Your task to perform on an android device: turn on location history Image 0: 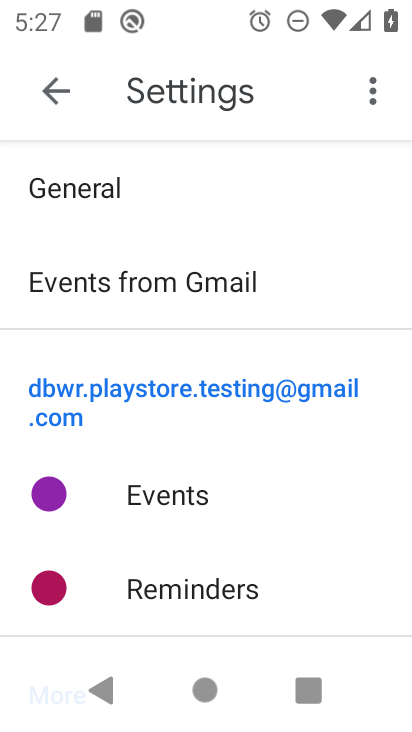
Step 0: press home button
Your task to perform on an android device: turn on location history Image 1: 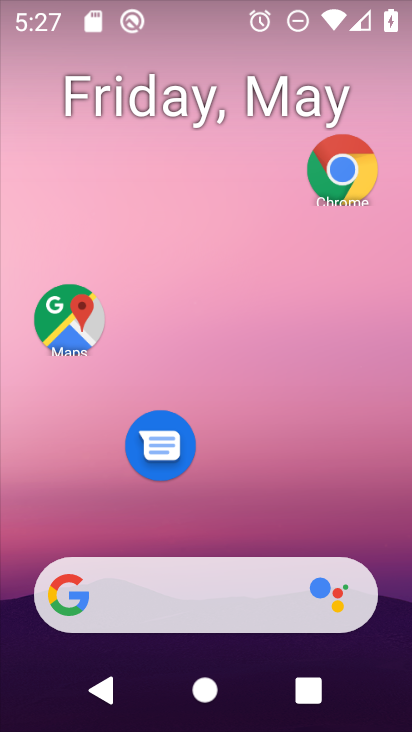
Step 1: drag from (235, 541) to (155, 146)
Your task to perform on an android device: turn on location history Image 2: 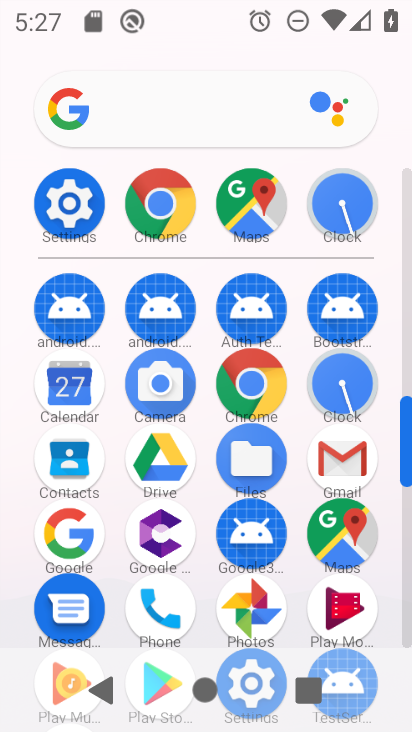
Step 2: click (72, 202)
Your task to perform on an android device: turn on location history Image 3: 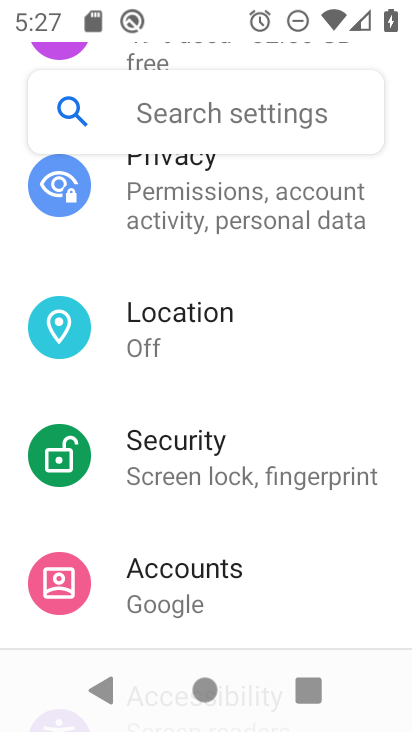
Step 3: click (235, 522)
Your task to perform on an android device: turn on location history Image 4: 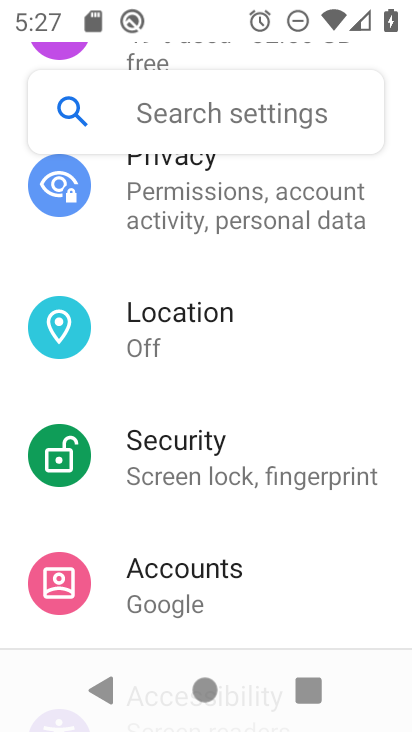
Step 4: click (124, 344)
Your task to perform on an android device: turn on location history Image 5: 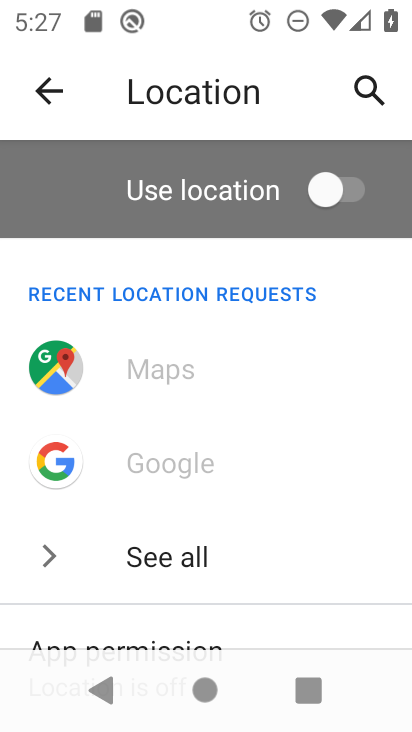
Step 5: drag from (255, 551) to (236, 238)
Your task to perform on an android device: turn on location history Image 6: 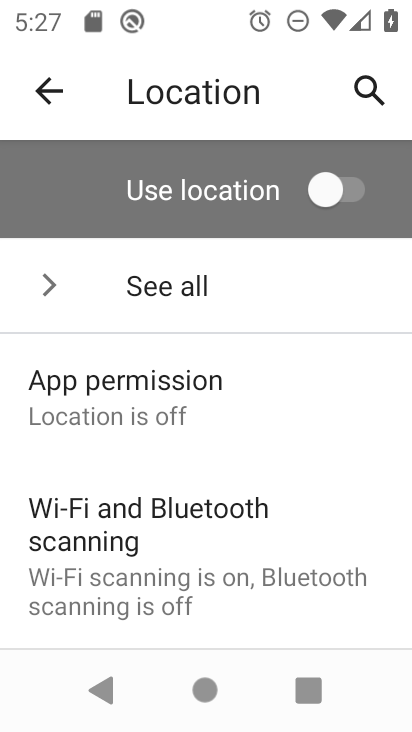
Step 6: drag from (259, 558) to (249, 289)
Your task to perform on an android device: turn on location history Image 7: 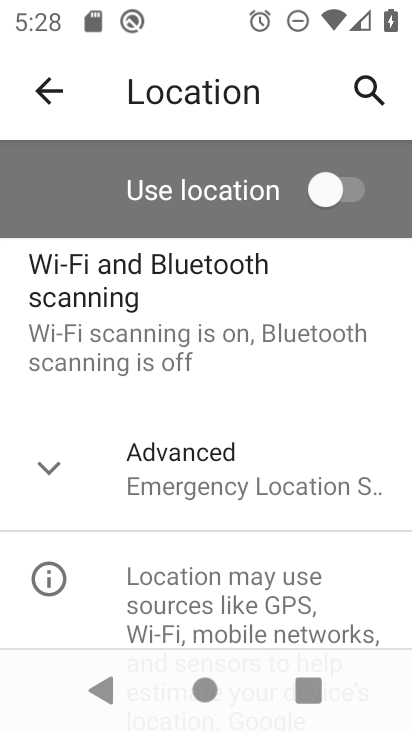
Step 7: drag from (160, 526) to (160, 329)
Your task to perform on an android device: turn on location history Image 8: 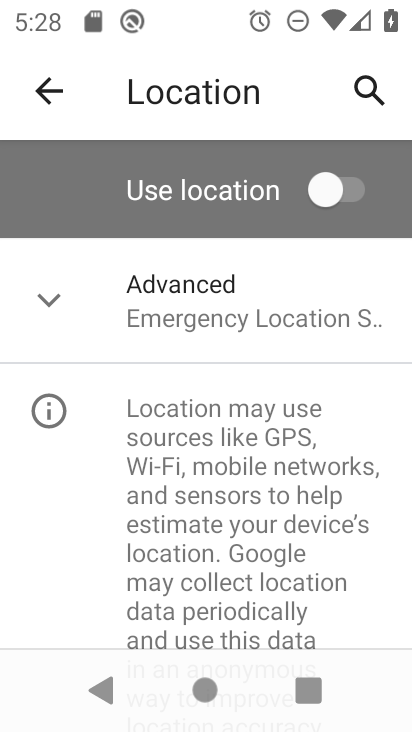
Step 8: click (93, 311)
Your task to perform on an android device: turn on location history Image 9: 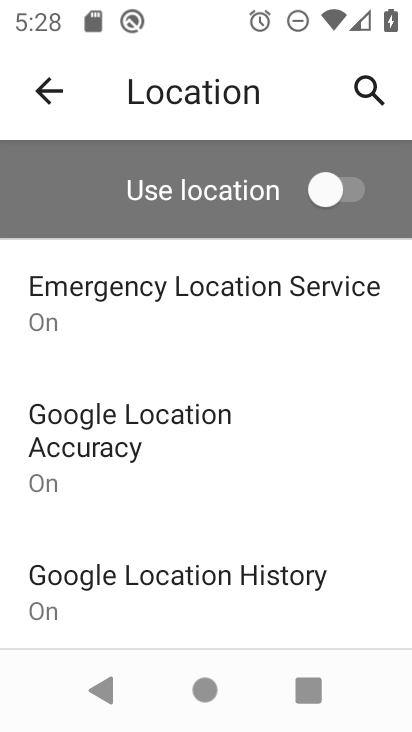
Step 9: click (174, 593)
Your task to perform on an android device: turn on location history Image 10: 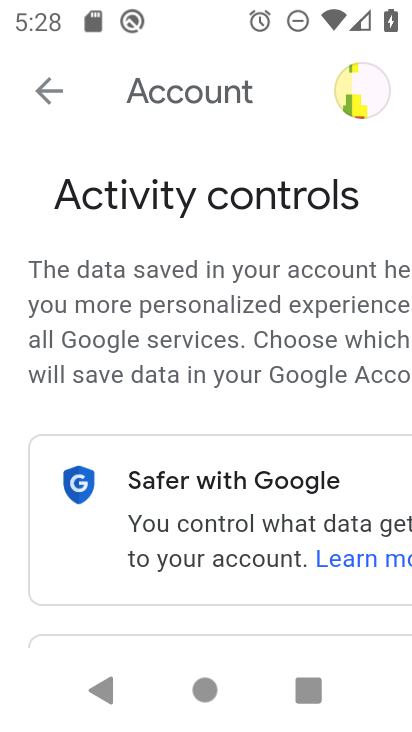
Step 10: drag from (165, 564) to (161, 221)
Your task to perform on an android device: turn on location history Image 11: 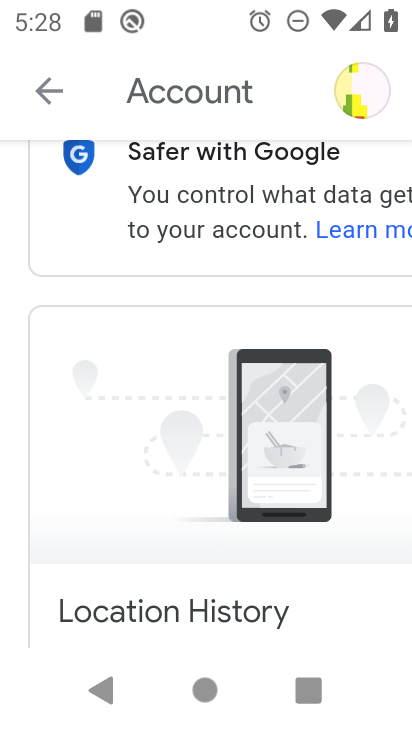
Step 11: drag from (177, 557) to (189, 215)
Your task to perform on an android device: turn on location history Image 12: 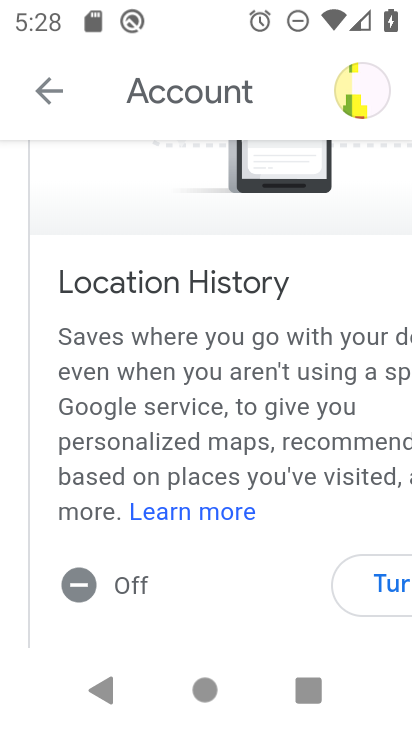
Step 12: click (358, 593)
Your task to perform on an android device: turn on location history Image 13: 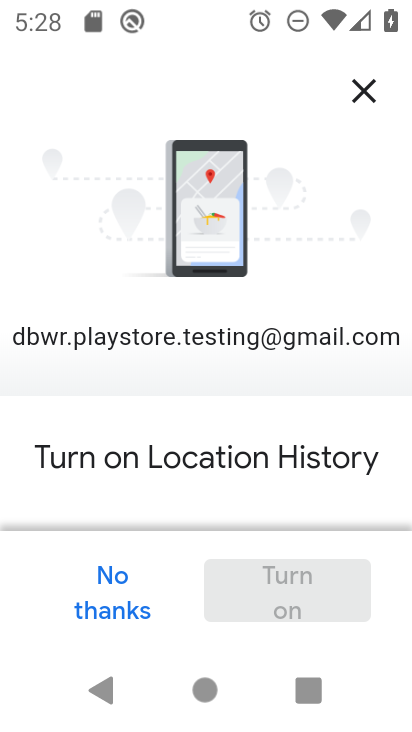
Step 13: drag from (213, 491) to (158, 190)
Your task to perform on an android device: turn on location history Image 14: 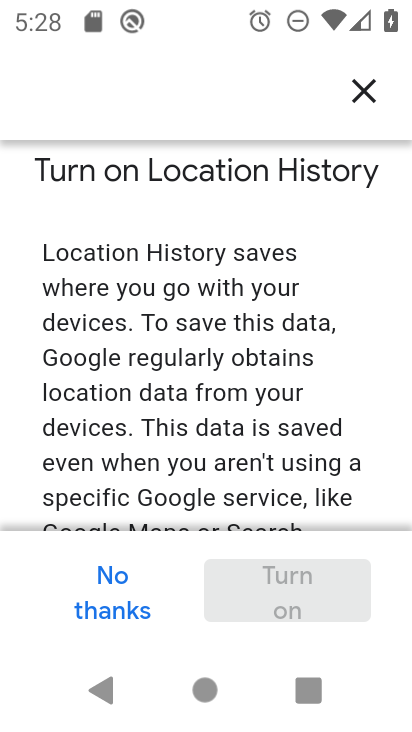
Step 14: drag from (224, 498) to (181, 167)
Your task to perform on an android device: turn on location history Image 15: 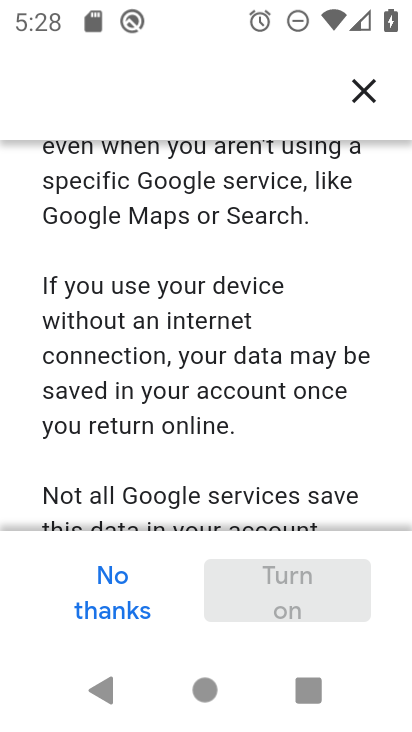
Step 15: drag from (212, 431) to (192, 178)
Your task to perform on an android device: turn on location history Image 16: 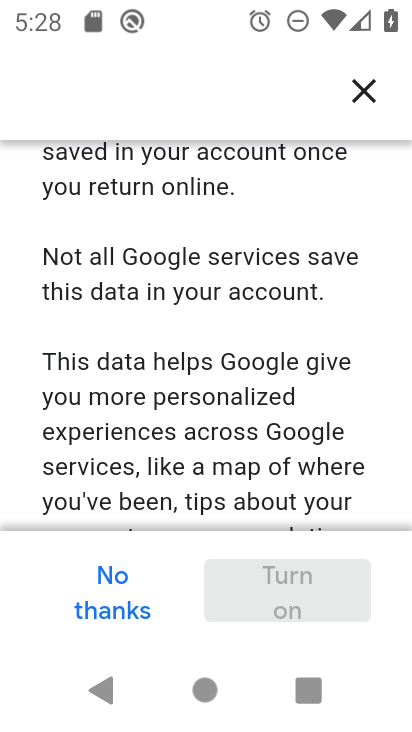
Step 16: drag from (216, 443) to (186, 136)
Your task to perform on an android device: turn on location history Image 17: 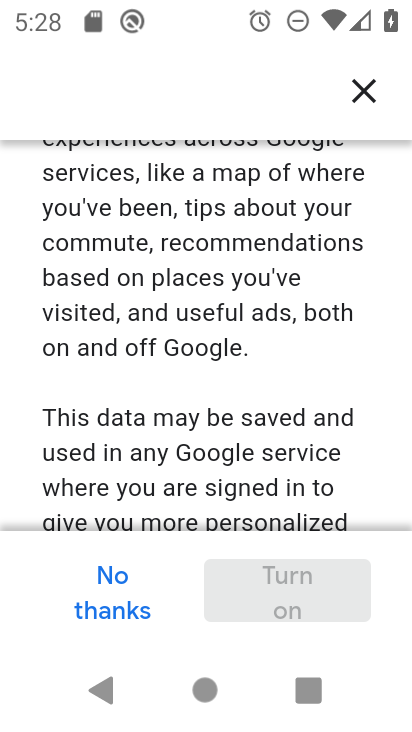
Step 17: drag from (190, 418) to (166, 73)
Your task to perform on an android device: turn on location history Image 18: 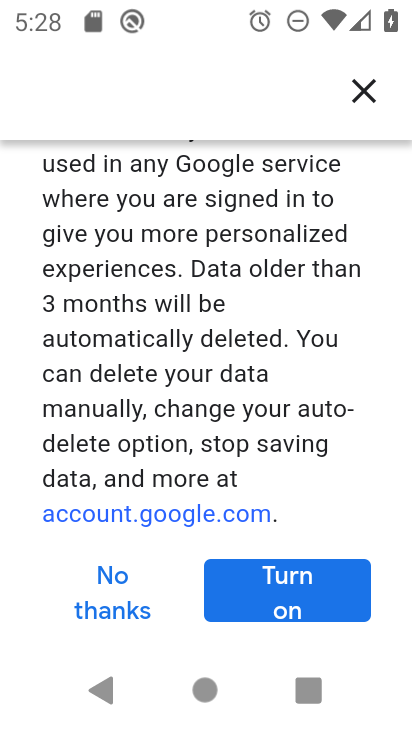
Step 18: click (288, 587)
Your task to perform on an android device: turn on location history Image 19: 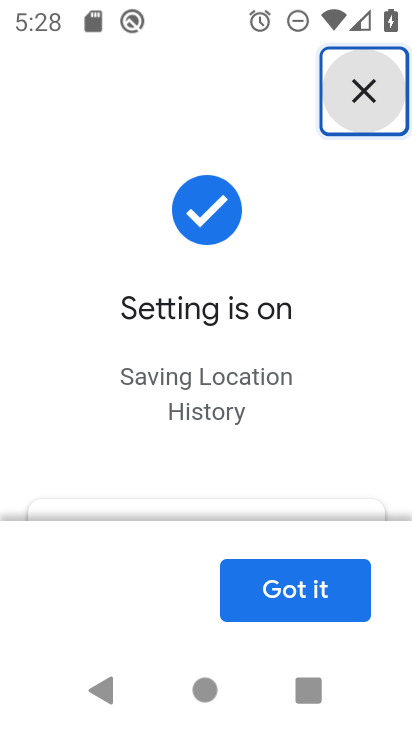
Step 19: click (286, 584)
Your task to perform on an android device: turn on location history Image 20: 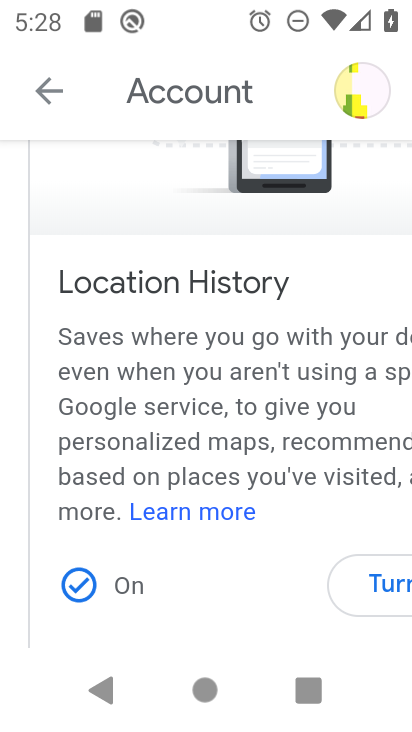
Step 20: task complete